Your task to perform on an android device: Turn off the flashlight Image 0: 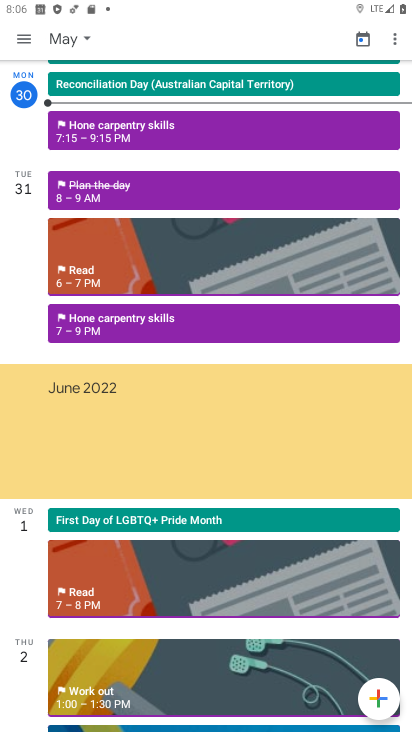
Step 0: press home button
Your task to perform on an android device: Turn off the flashlight Image 1: 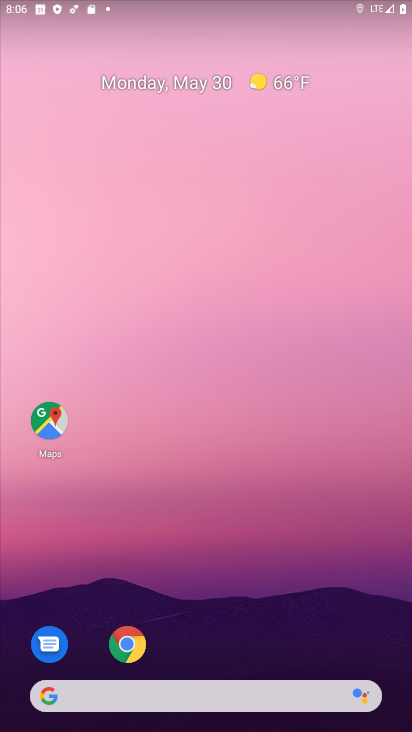
Step 1: drag from (223, 641) to (184, 75)
Your task to perform on an android device: Turn off the flashlight Image 2: 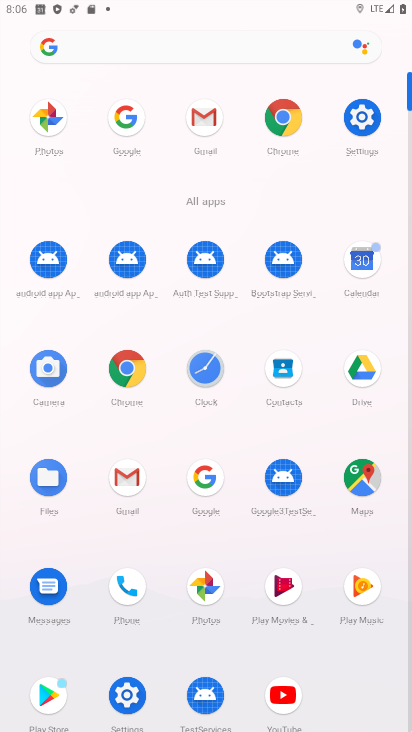
Step 2: click (366, 116)
Your task to perform on an android device: Turn off the flashlight Image 3: 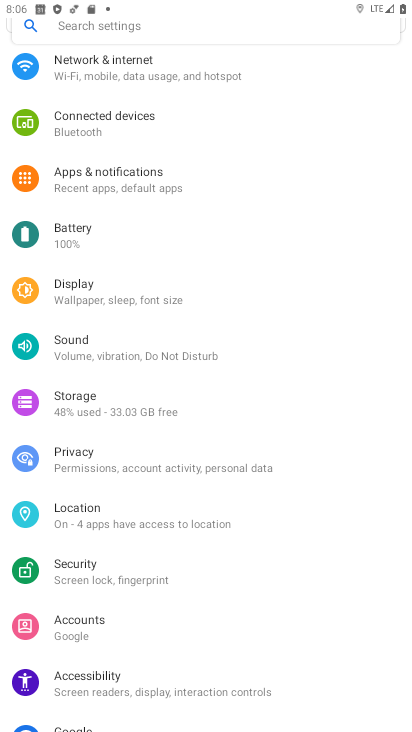
Step 3: click (149, 19)
Your task to perform on an android device: Turn off the flashlight Image 4: 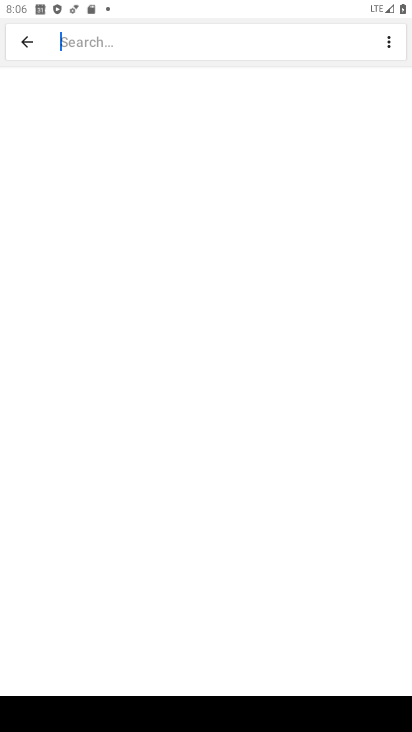
Step 4: type "flash"
Your task to perform on an android device: Turn off the flashlight Image 5: 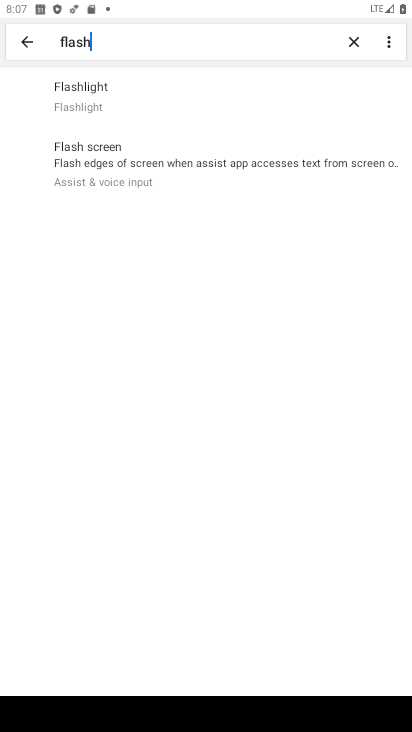
Step 5: task complete